Your task to perform on an android device: toggle translation in the chrome app Image 0: 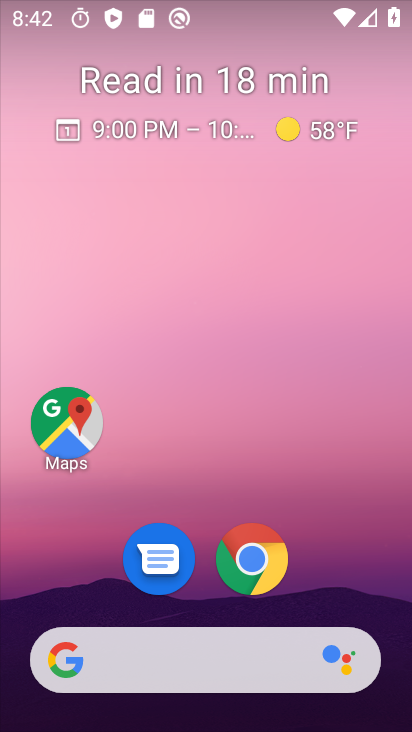
Step 0: click (249, 536)
Your task to perform on an android device: toggle translation in the chrome app Image 1: 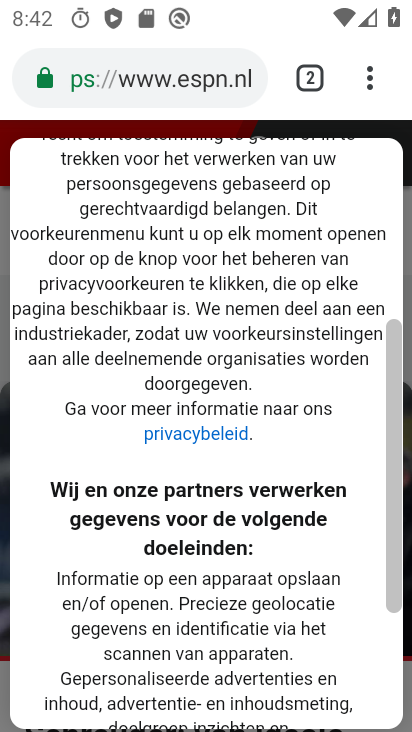
Step 1: click (367, 78)
Your task to perform on an android device: toggle translation in the chrome app Image 2: 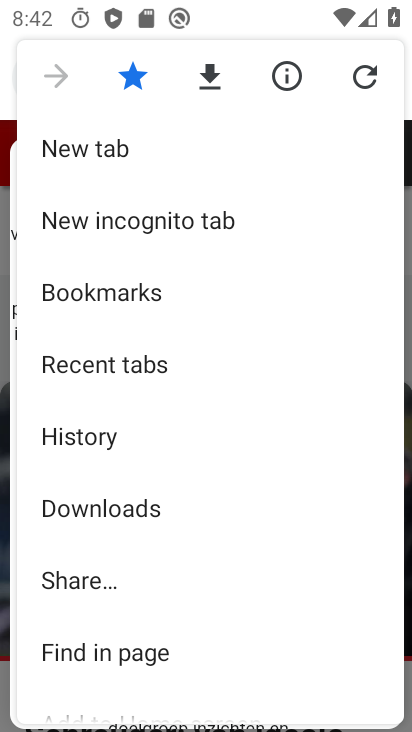
Step 2: drag from (84, 546) to (116, 361)
Your task to perform on an android device: toggle translation in the chrome app Image 3: 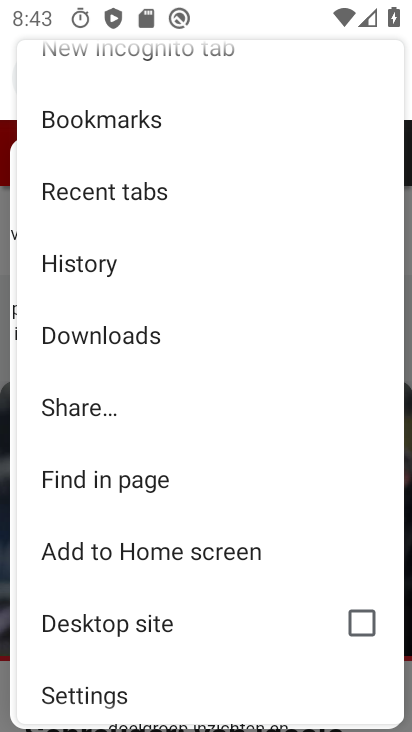
Step 3: drag from (87, 526) to (116, 346)
Your task to perform on an android device: toggle translation in the chrome app Image 4: 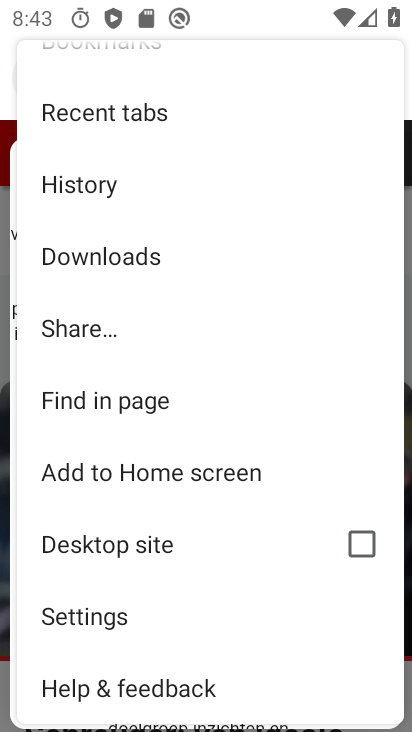
Step 4: click (98, 613)
Your task to perform on an android device: toggle translation in the chrome app Image 5: 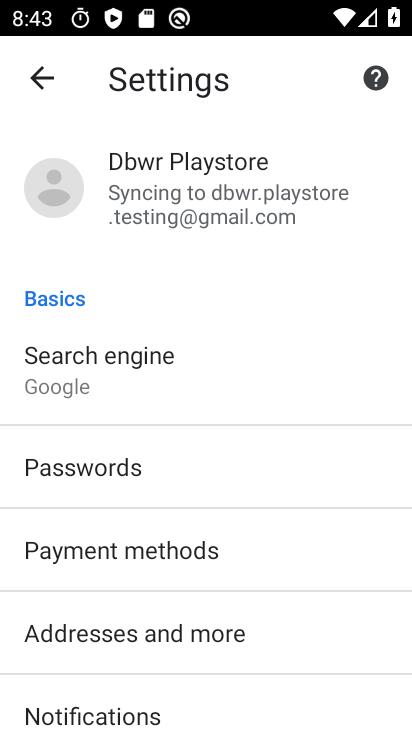
Step 5: drag from (97, 588) to (136, 331)
Your task to perform on an android device: toggle translation in the chrome app Image 6: 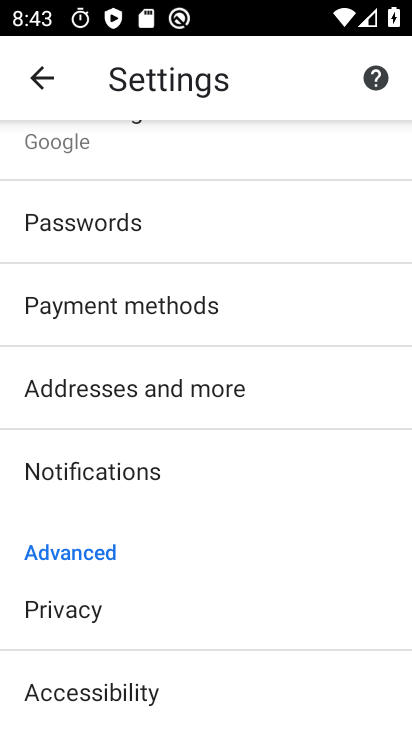
Step 6: drag from (85, 448) to (155, 251)
Your task to perform on an android device: toggle translation in the chrome app Image 7: 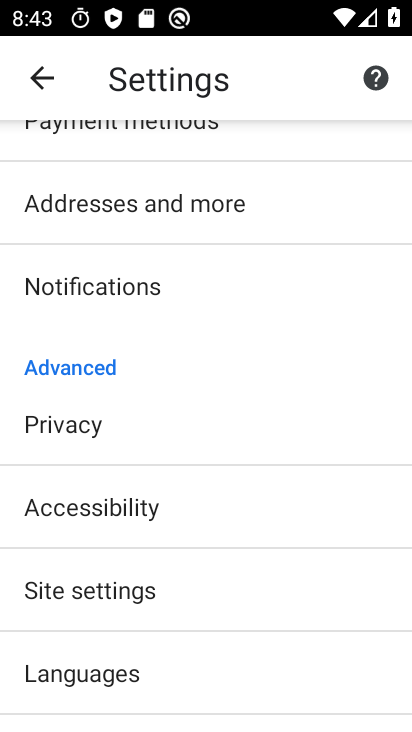
Step 7: drag from (80, 624) to (97, 322)
Your task to perform on an android device: toggle translation in the chrome app Image 8: 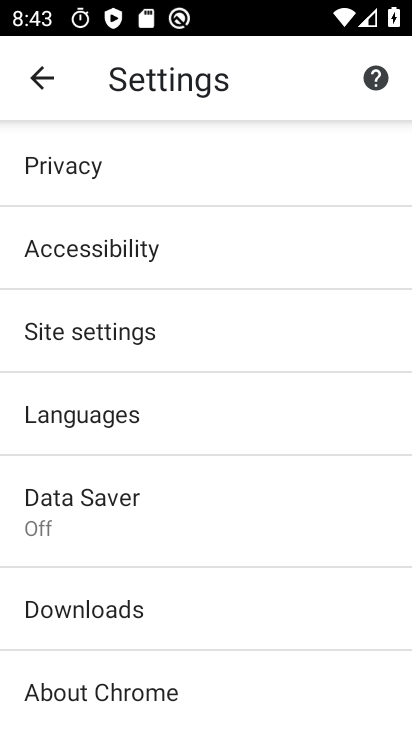
Step 8: click (69, 414)
Your task to perform on an android device: toggle translation in the chrome app Image 9: 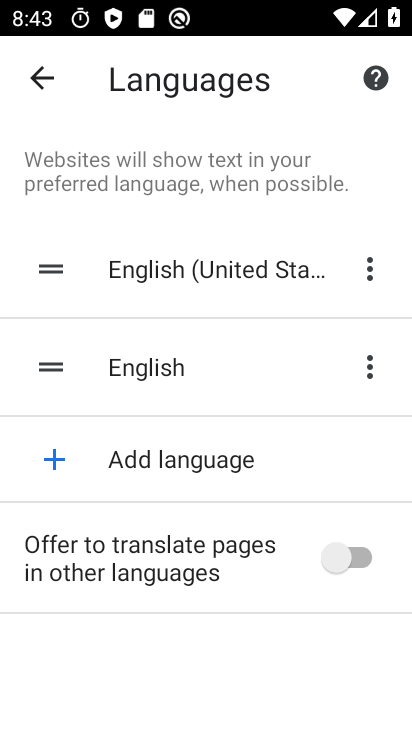
Step 9: click (348, 555)
Your task to perform on an android device: toggle translation in the chrome app Image 10: 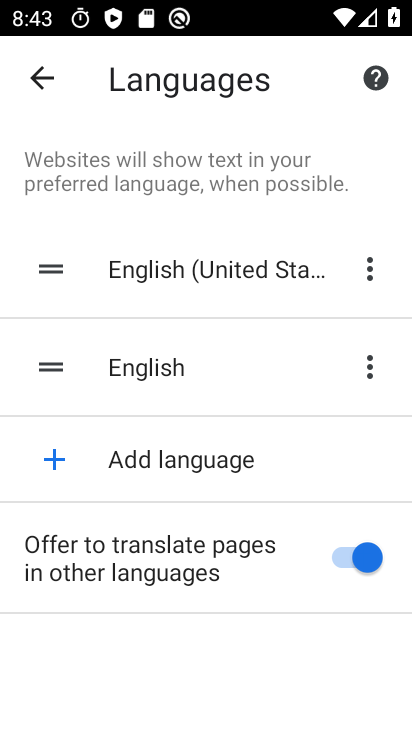
Step 10: task complete